Your task to perform on an android device: refresh tabs in the chrome app Image 0: 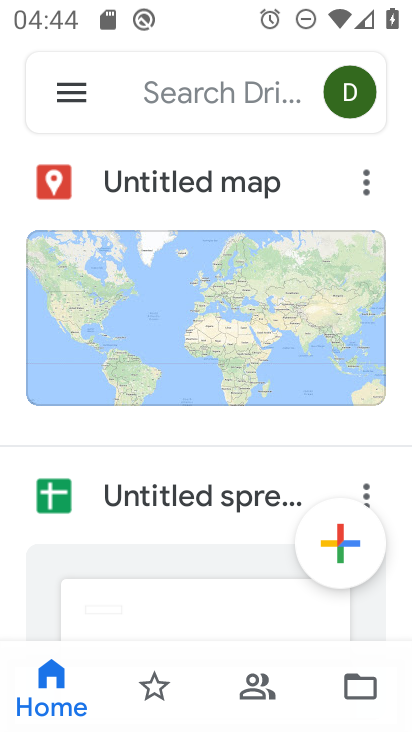
Step 0: press home button
Your task to perform on an android device: refresh tabs in the chrome app Image 1: 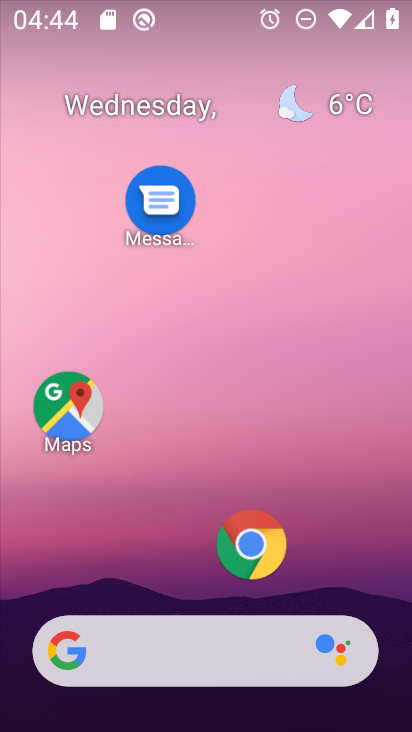
Step 1: click (248, 560)
Your task to perform on an android device: refresh tabs in the chrome app Image 2: 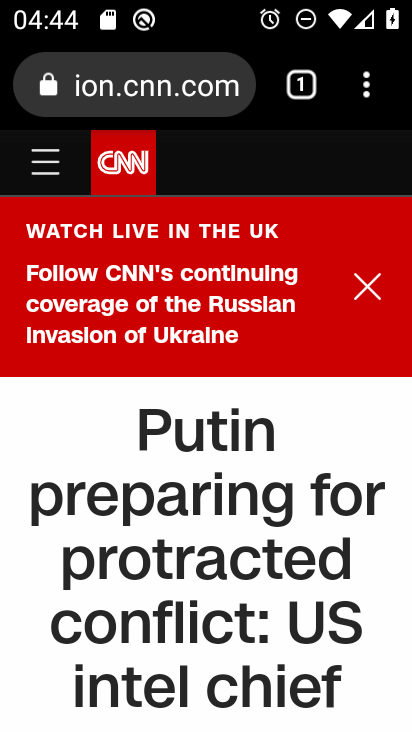
Step 2: click (378, 97)
Your task to perform on an android device: refresh tabs in the chrome app Image 3: 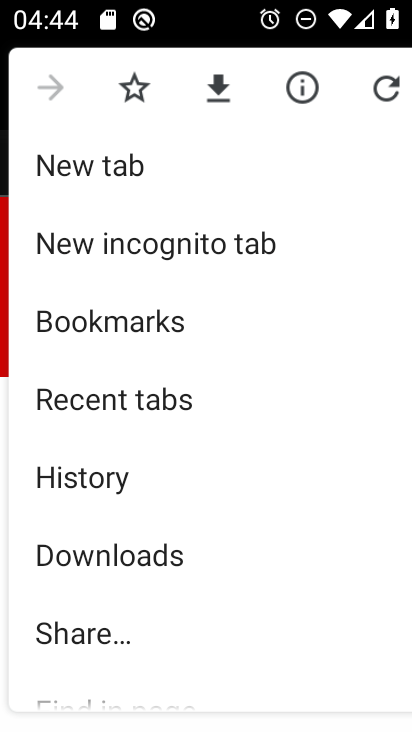
Step 3: click (378, 97)
Your task to perform on an android device: refresh tabs in the chrome app Image 4: 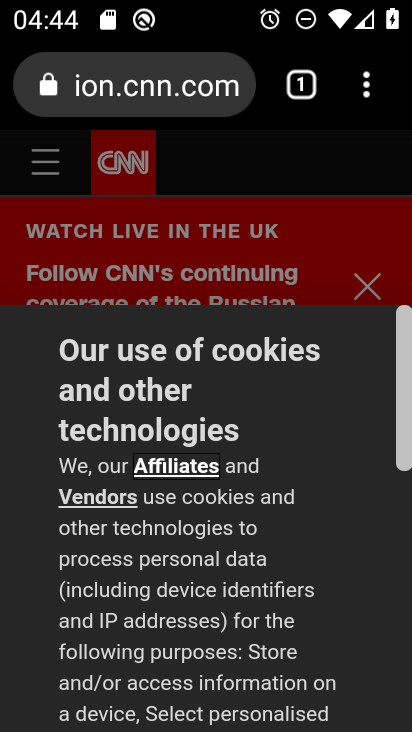
Step 4: task complete